Your task to perform on an android device: clear all cookies in the chrome app Image 0: 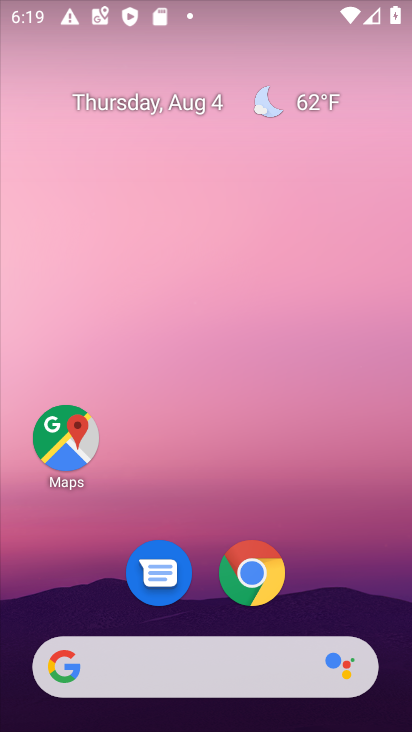
Step 0: press home button
Your task to perform on an android device: clear all cookies in the chrome app Image 1: 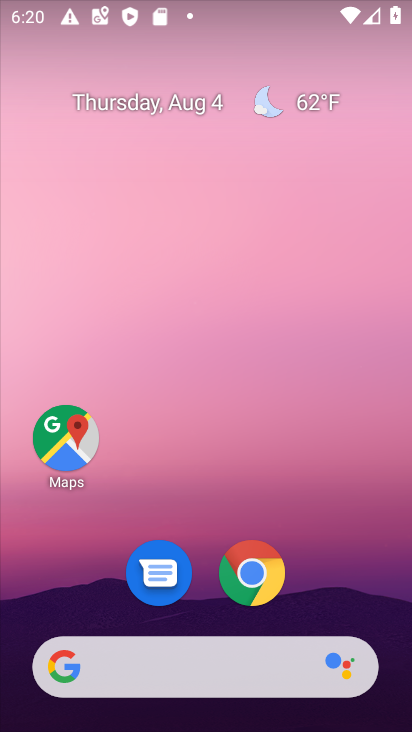
Step 1: drag from (212, 590) to (212, 139)
Your task to perform on an android device: clear all cookies in the chrome app Image 2: 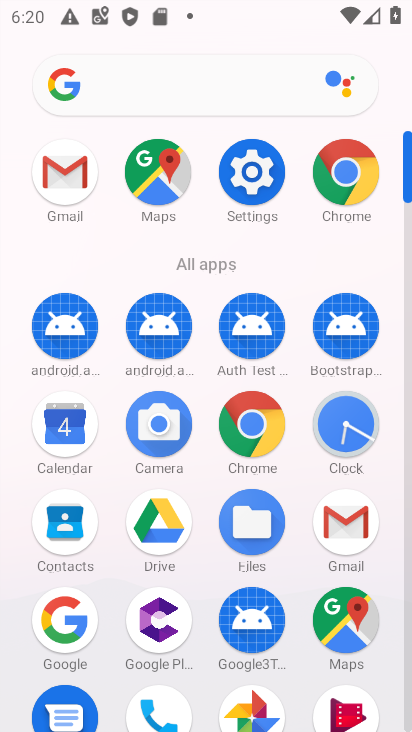
Step 2: click (344, 184)
Your task to perform on an android device: clear all cookies in the chrome app Image 3: 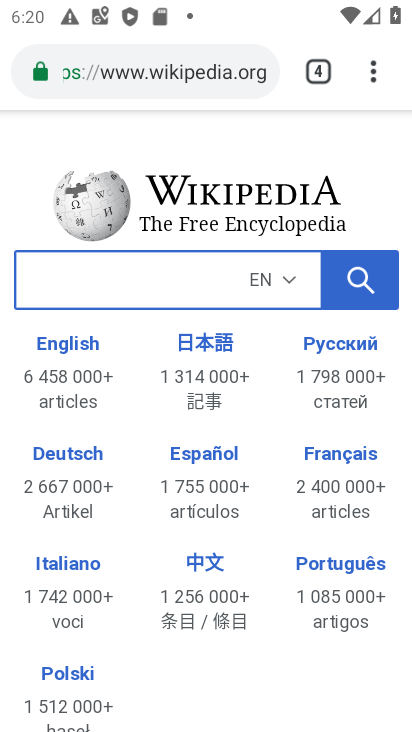
Step 3: drag from (372, 71) to (146, 567)
Your task to perform on an android device: clear all cookies in the chrome app Image 4: 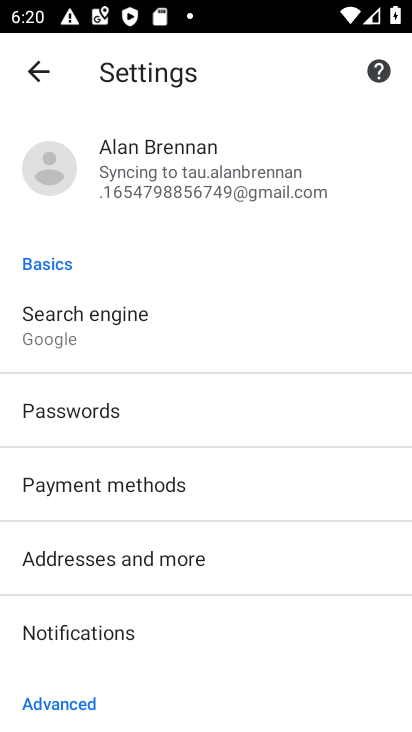
Step 4: drag from (272, 651) to (272, 221)
Your task to perform on an android device: clear all cookies in the chrome app Image 5: 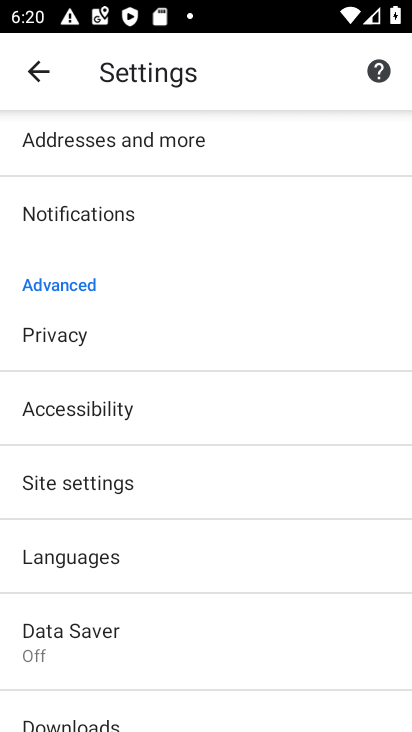
Step 5: click (43, 332)
Your task to perform on an android device: clear all cookies in the chrome app Image 6: 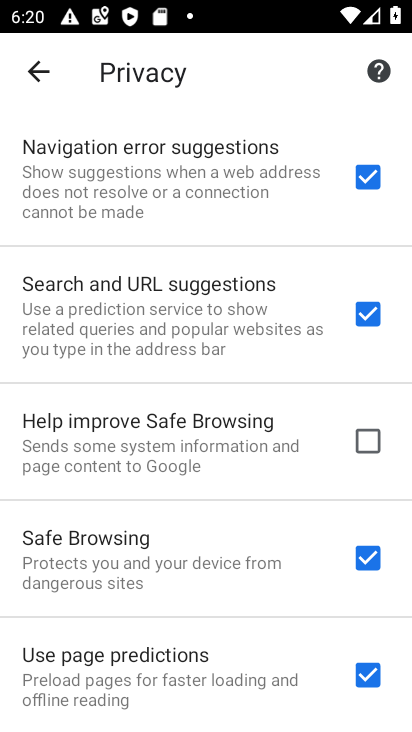
Step 6: drag from (264, 652) to (259, 112)
Your task to perform on an android device: clear all cookies in the chrome app Image 7: 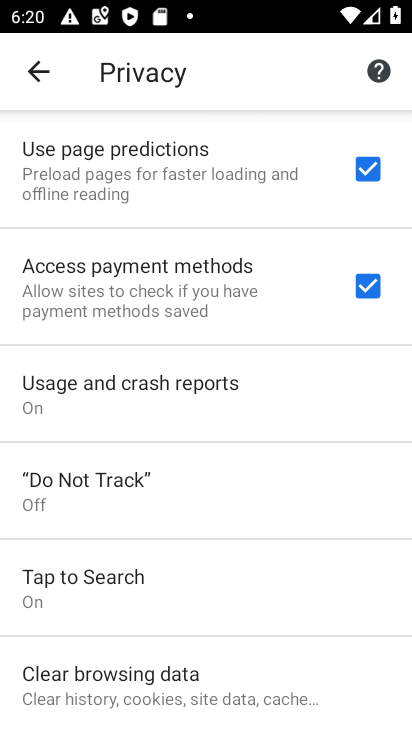
Step 7: click (108, 680)
Your task to perform on an android device: clear all cookies in the chrome app Image 8: 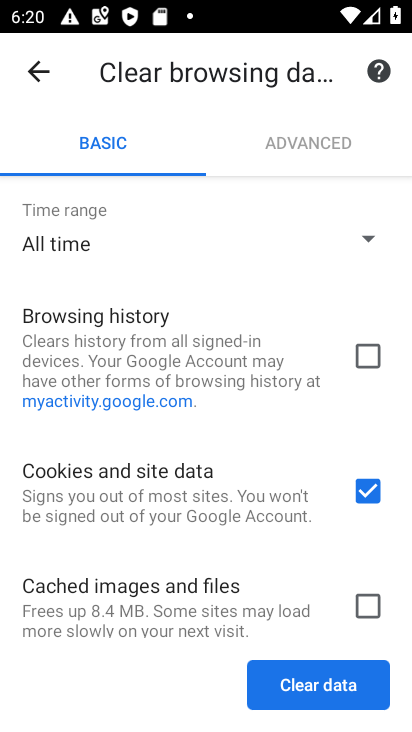
Step 8: click (314, 697)
Your task to perform on an android device: clear all cookies in the chrome app Image 9: 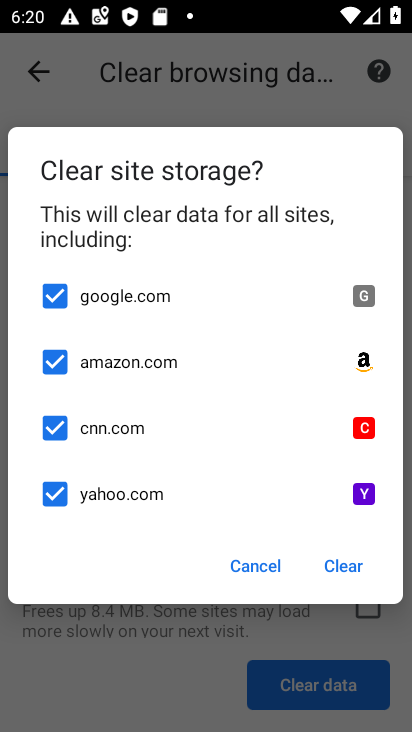
Step 9: click (335, 570)
Your task to perform on an android device: clear all cookies in the chrome app Image 10: 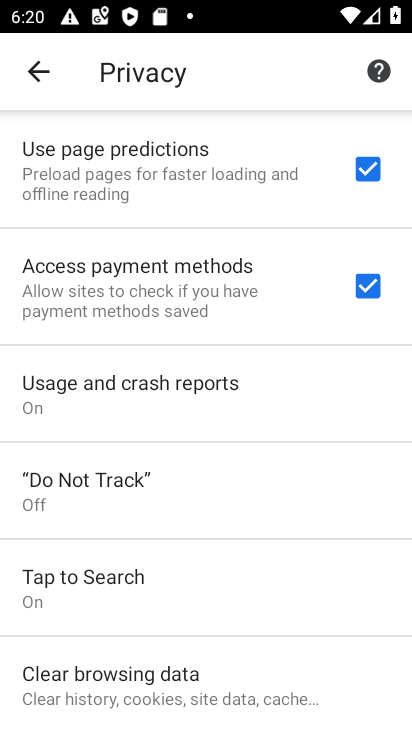
Step 10: task complete